Your task to perform on an android device: turn off picture-in-picture Image 0: 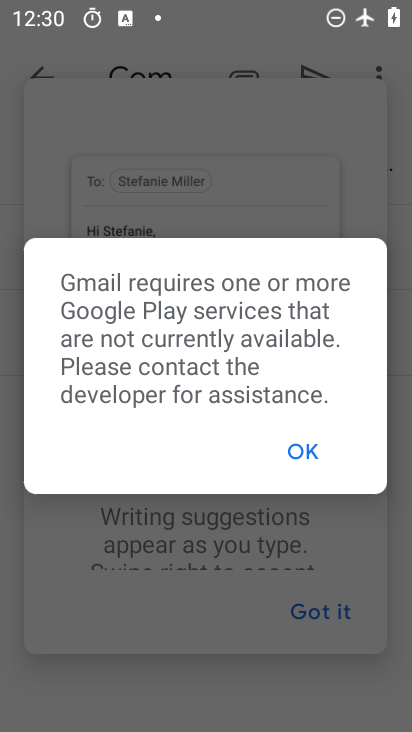
Step 0: press home button
Your task to perform on an android device: turn off picture-in-picture Image 1: 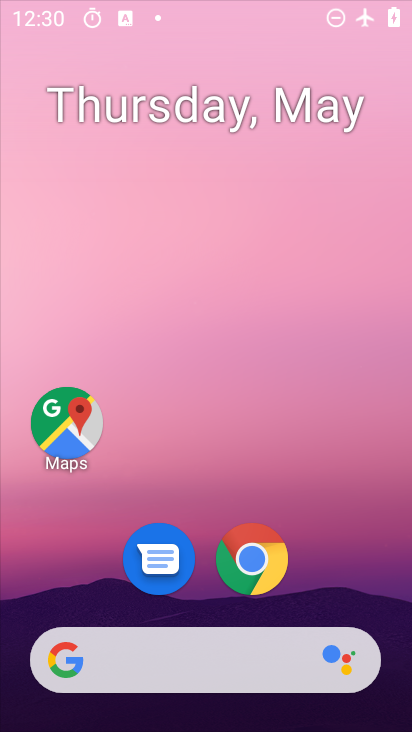
Step 1: drag from (139, 661) to (229, 215)
Your task to perform on an android device: turn off picture-in-picture Image 2: 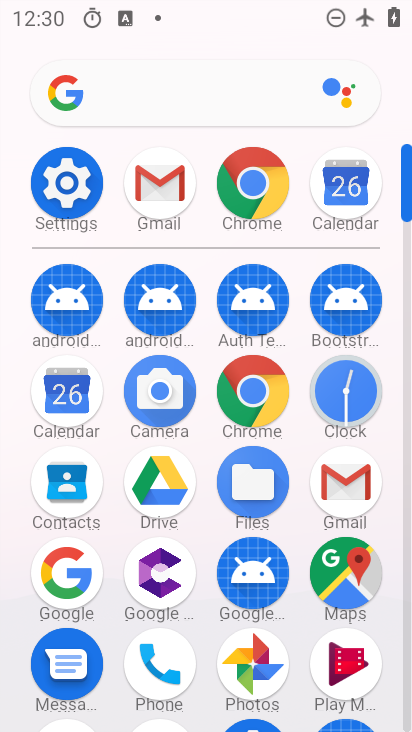
Step 2: click (79, 189)
Your task to perform on an android device: turn off picture-in-picture Image 3: 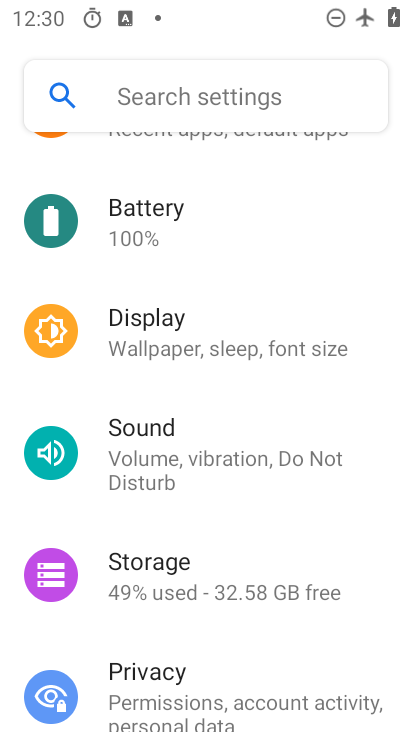
Step 3: drag from (202, 389) to (165, 622)
Your task to perform on an android device: turn off picture-in-picture Image 4: 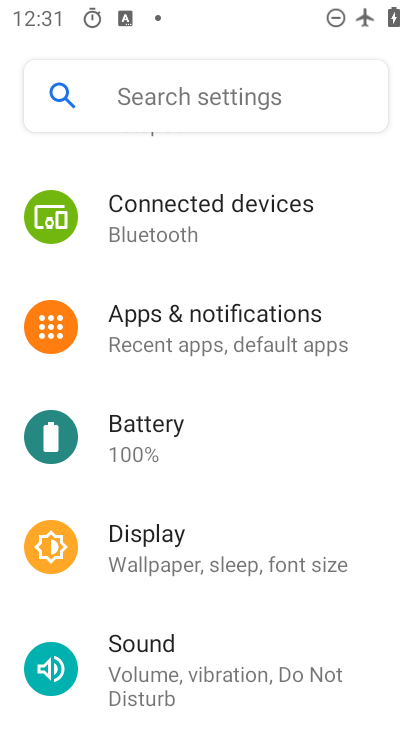
Step 4: click (203, 339)
Your task to perform on an android device: turn off picture-in-picture Image 5: 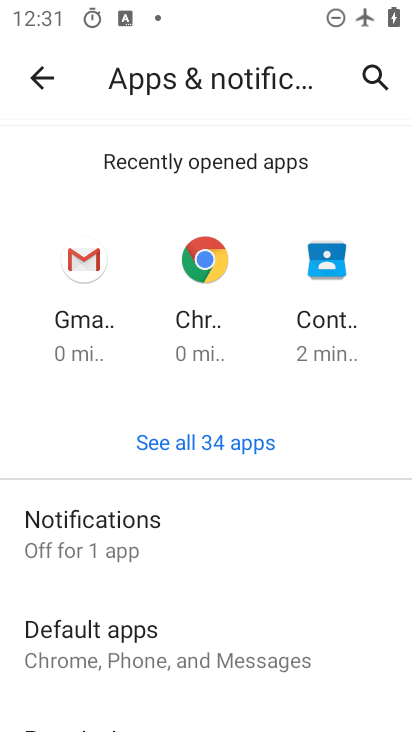
Step 5: click (178, 550)
Your task to perform on an android device: turn off picture-in-picture Image 6: 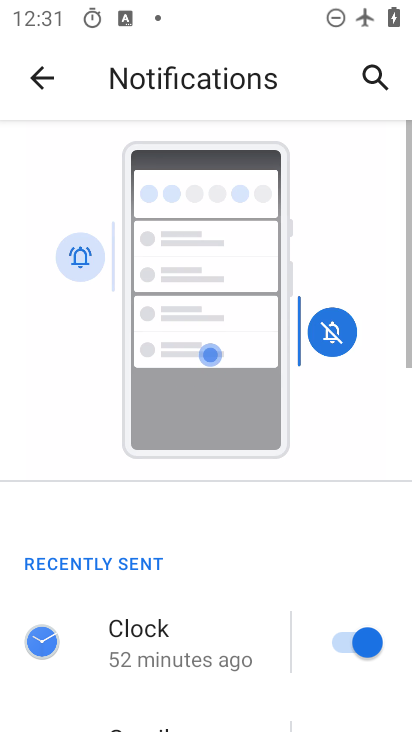
Step 6: click (52, 94)
Your task to perform on an android device: turn off picture-in-picture Image 7: 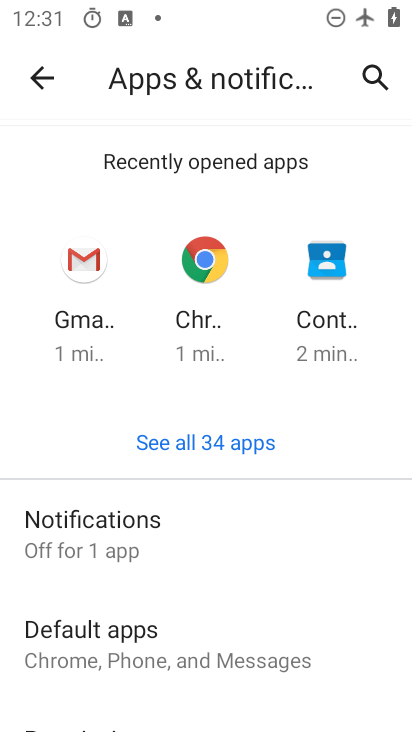
Step 7: drag from (140, 582) to (278, 143)
Your task to perform on an android device: turn off picture-in-picture Image 8: 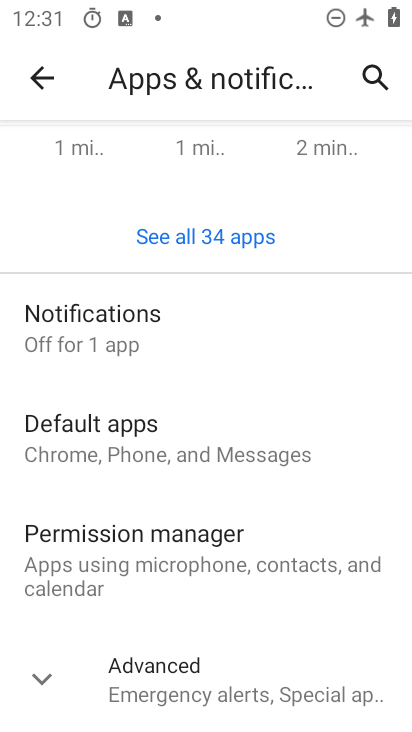
Step 8: click (203, 699)
Your task to perform on an android device: turn off picture-in-picture Image 9: 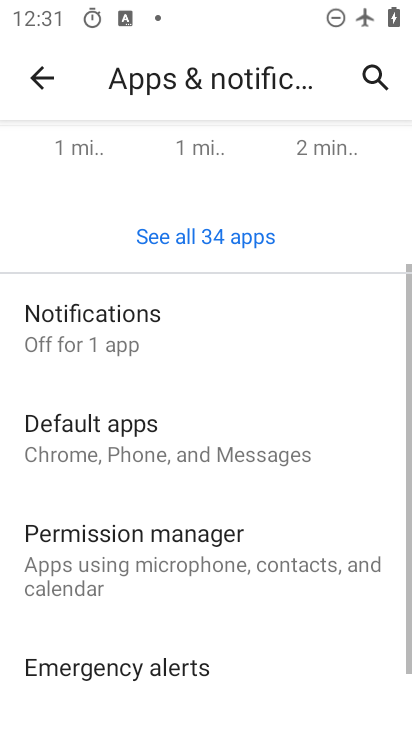
Step 9: drag from (206, 632) to (305, 188)
Your task to perform on an android device: turn off picture-in-picture Image 10: 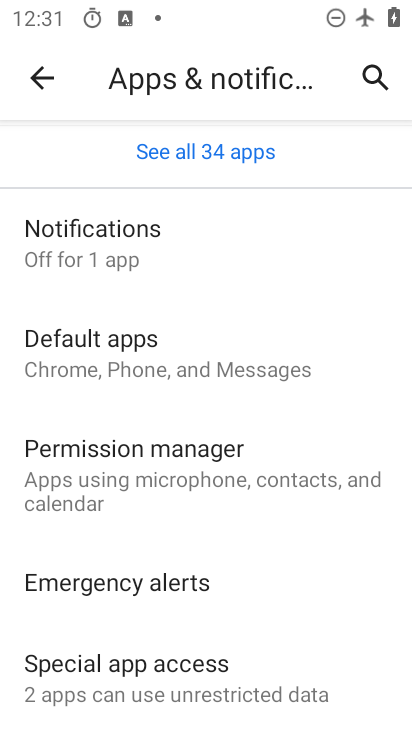
Step 10: click (231, 679)
Your task to perform on an android device: turn off picture-in-picture Image 11: 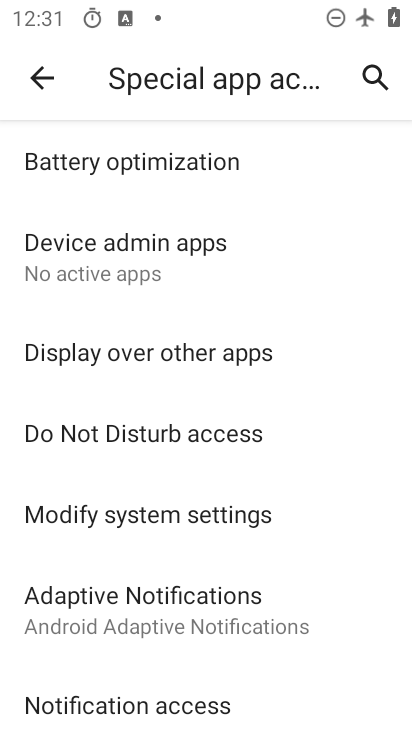
Step 11: drag from (181, 624) to (210, 250)
Your task to perform on an android device: turn off picture-in-picture Image 12: 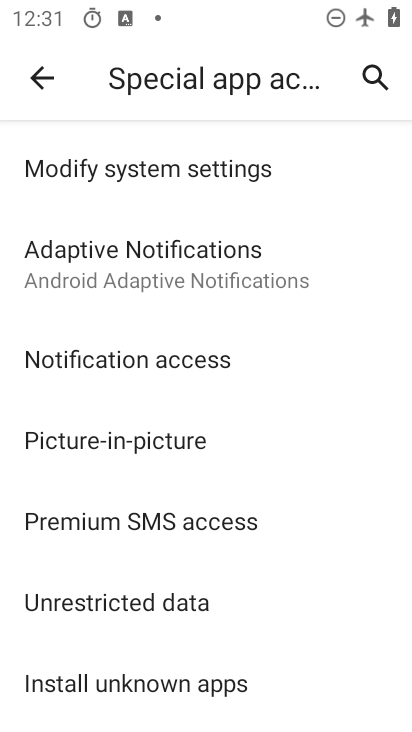
Step 12: click (179, 446)
Your task to perform on an android device: turn off picture-in-picture Image 13: 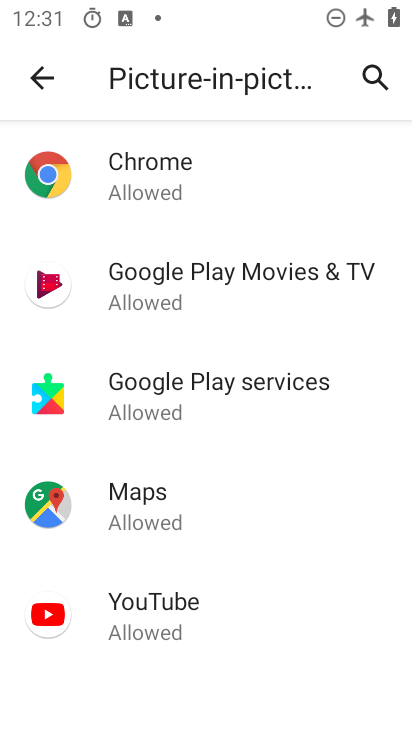
Step 13: click (271, 173)
Your task to perform on an android device: turn off picture-in-picture Image 14: 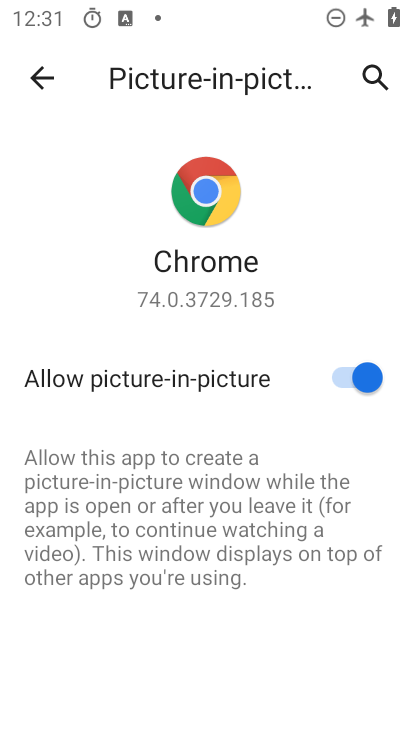
Step 14: click (341, 389)
Your task to perform on an android device: turn off picture-in-picture Image 15: 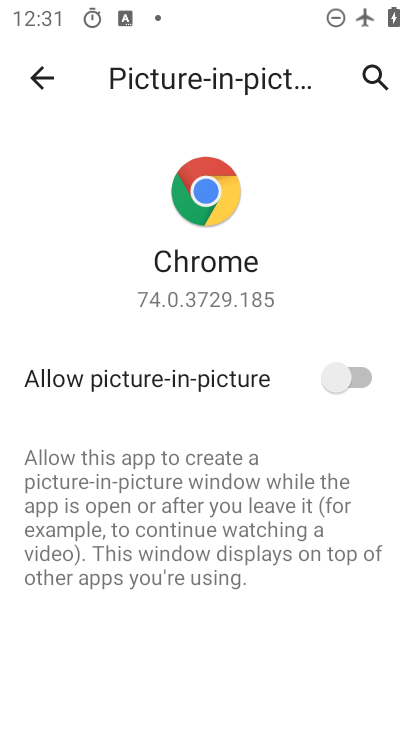
Step 15: task complete